Your task to perform on an android device: Open Yahoo.com Image 0: 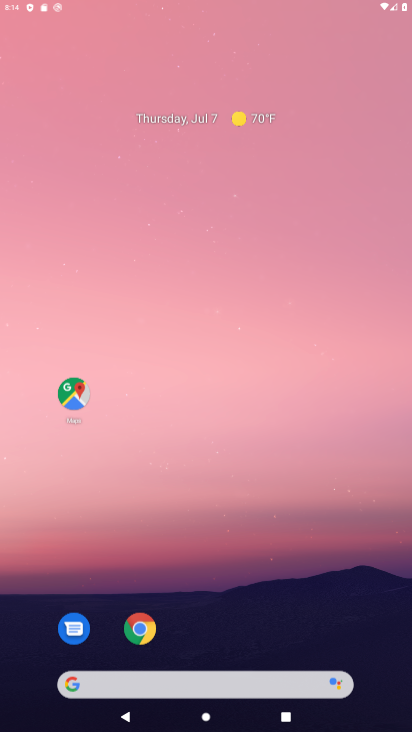
Step 0: click (311, 75)
Your task to perform on an android device: Open Yahoo.com Image 1: 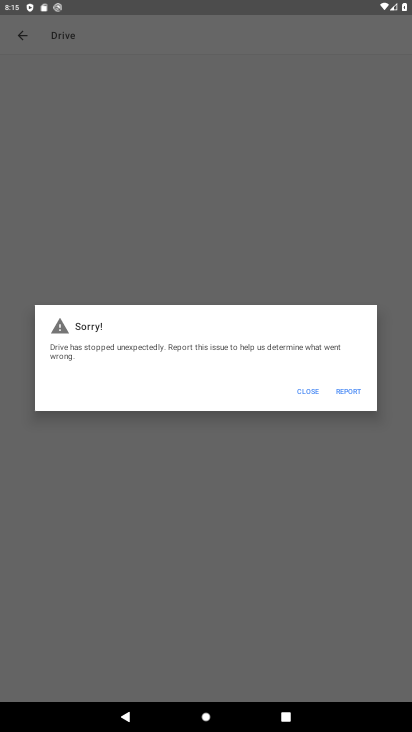
Step 1: press home button
Your task to perform on an android device: Open Yahoo.com Image 2: 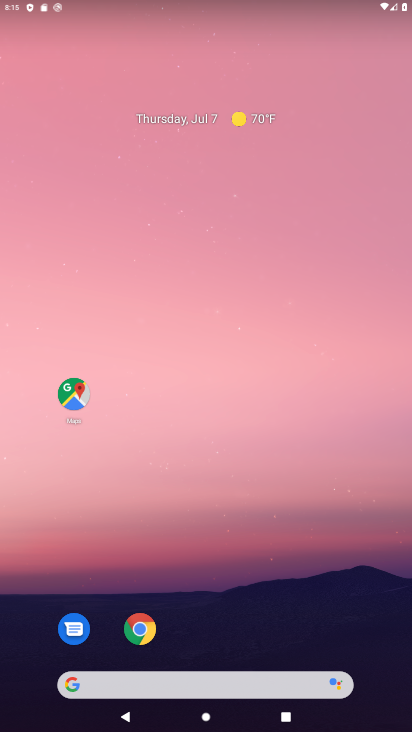
Step 2: click (144, 628)
Your task to perform on an android device: Open Yahoo.com Image 3: 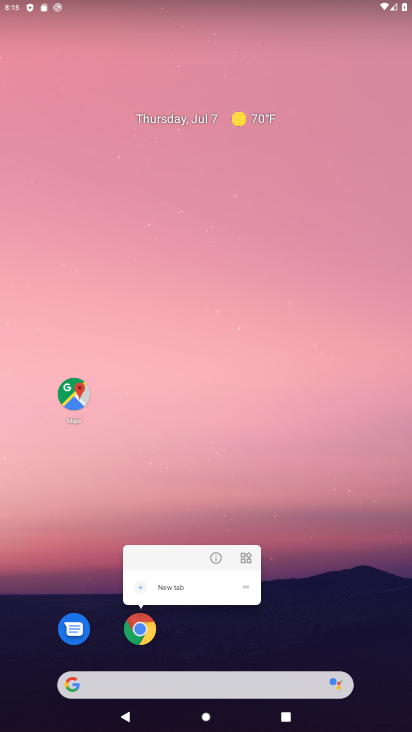
Step 3: click (144, 632)
Your task to perform on an android device: Open Yahoo.com Image 4: 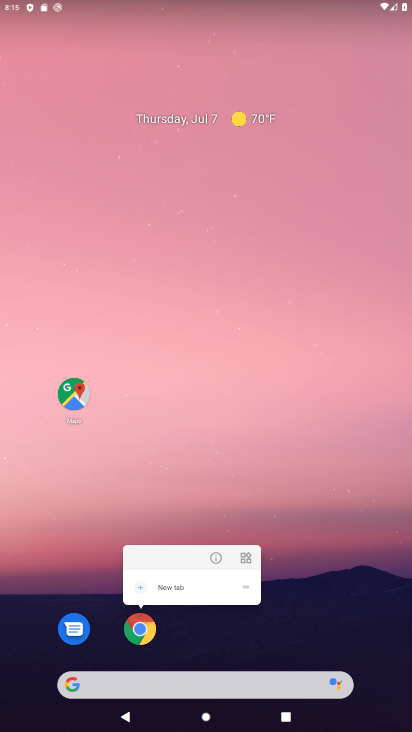
Step 4: click (145, 628)
Your task to perform on an android device: Open Yahoo.com Image 5: 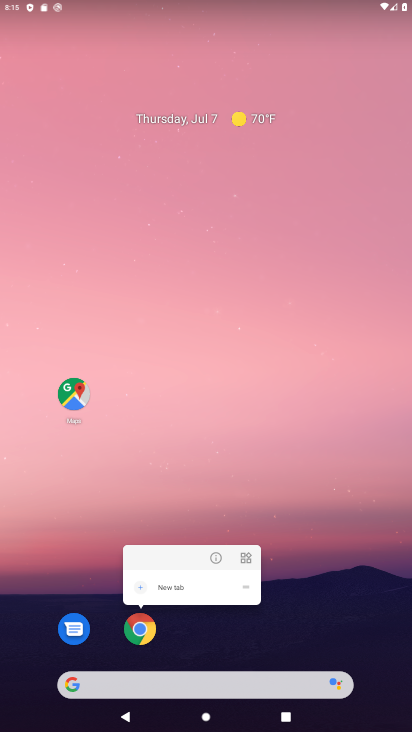
Step 5: click (145, 625)
Your task to perform on an android device: Open Yahoo.com Image 6: 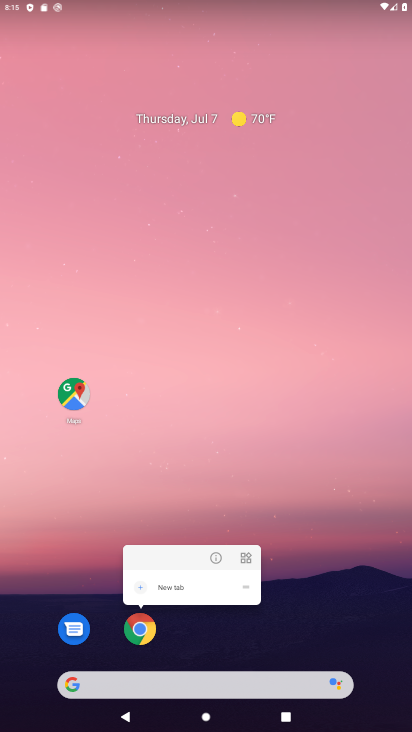
Step 6: click (145, 625)
Your task to perform on an android device: Open Yahoo.com Image 7: 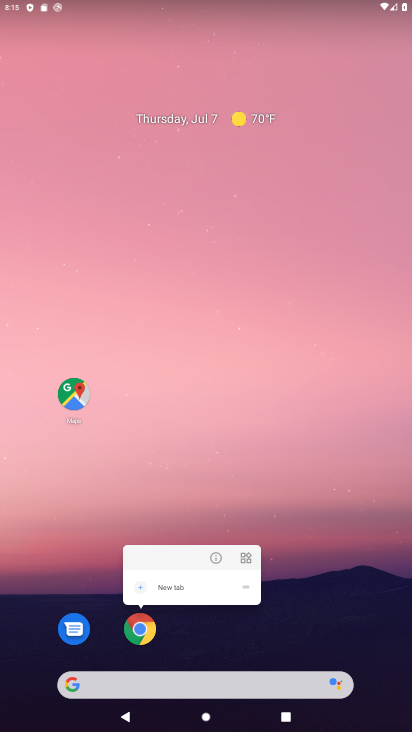
Step 7: click (142, 629)
Your task to perform on an android device: Open Yahoo.com Image 8: 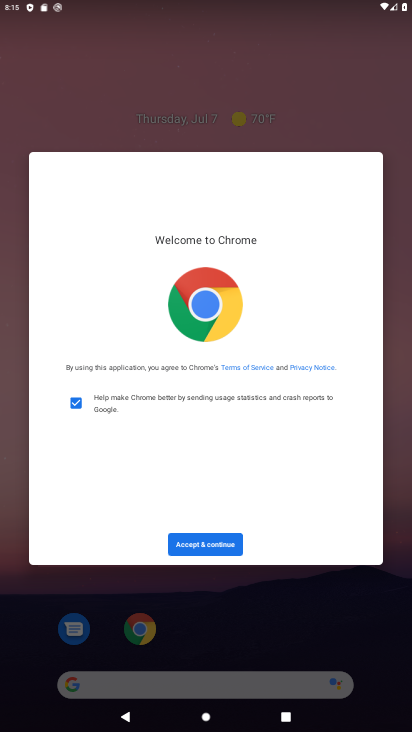
Step 8: click (207, 553)
Your task to perform on an android device: Open Yahoo.com Image 9: 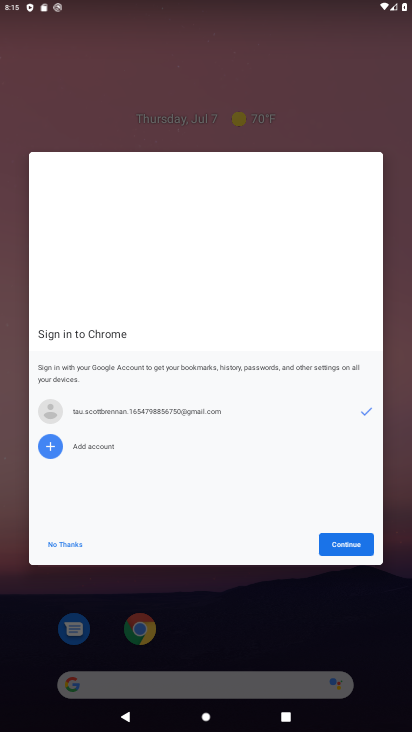
Step 9: click (370, 553)
Your task to perform on an android device: Open Yahoo.com Image 10: 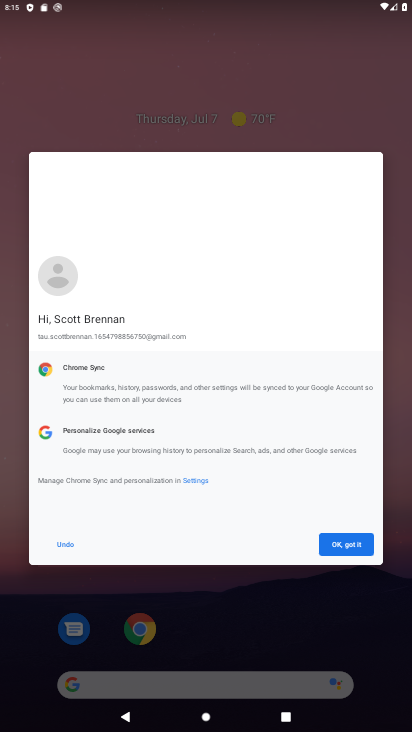
Step 10: click (359, 543)
Your task to perform on an android device: Open Yahoo.com Image 11: 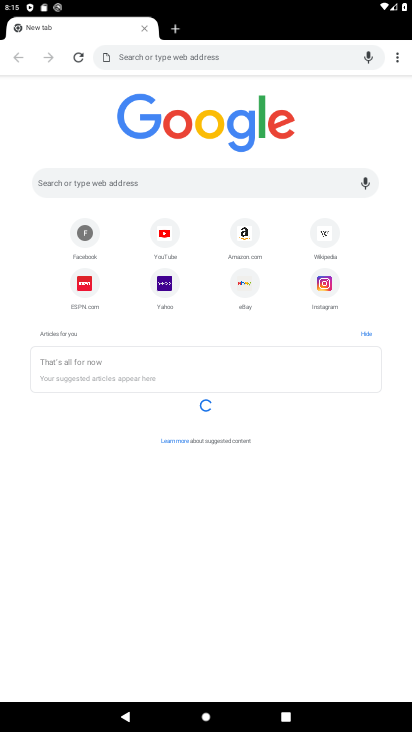
Step 11: click (178, 294)
Your task to perform on an android device: Open Yahoo.com Image 12: 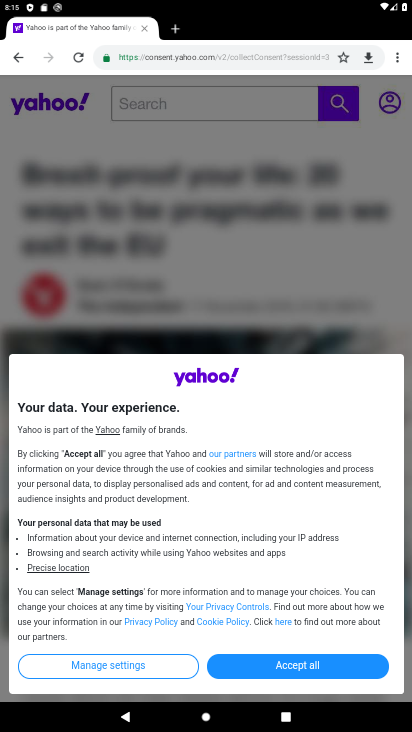
Step 12: click (325, 659)
Your task to perform on an android device: Open Yahoo.com Image 13: 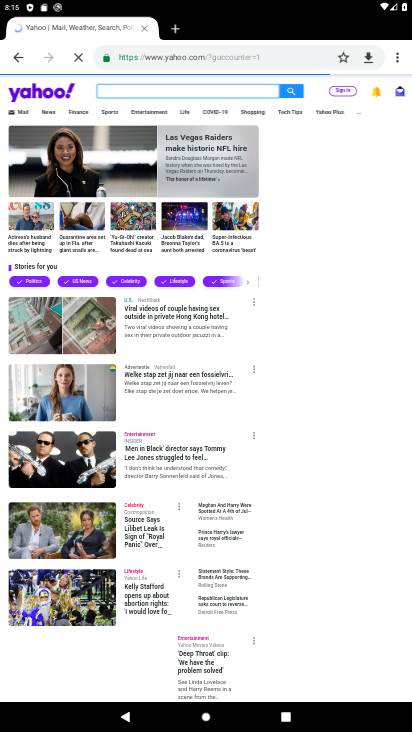
Step 13: task complete